Your task to perform on an android device: move an email to a new category in the gmail app Image 0: 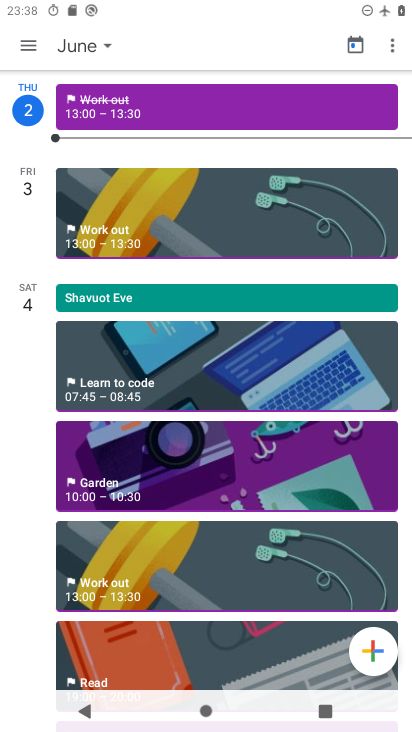
Step 0: press back button
Your task to perform on an android device: move an email to a new category in the gmail app Image 1: 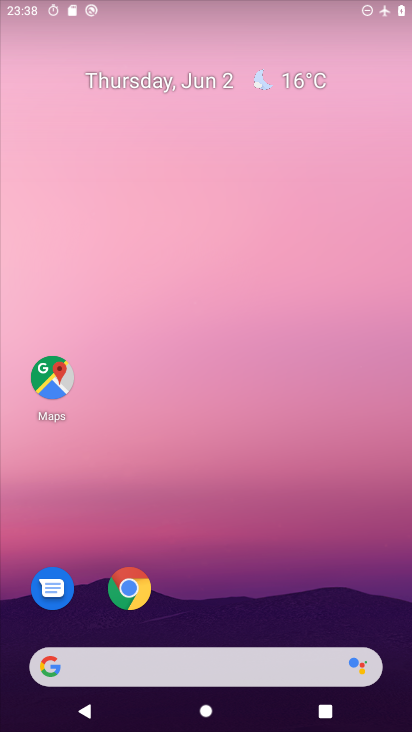
Step 1: drag from (267, 568) to (301, 57)
Your task to perform on an android device: move an email to a new category in the gmail app Image 2: 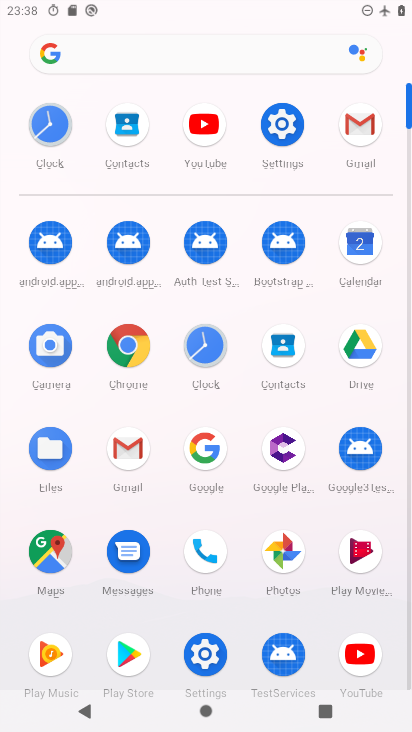
Step 2: click (364, 131)
Your task to perform on an android device: move an email to a new category in the gmail app Image 3: 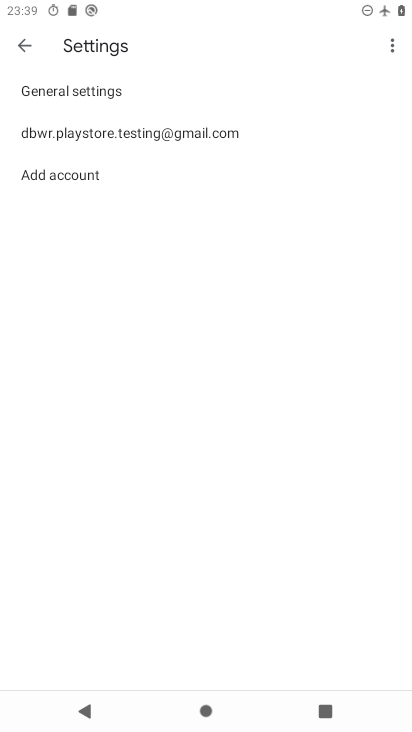
Step 3: click (14, 40)
Your task to perform on an android device: move an email to a new category in the gmail app Image 4: 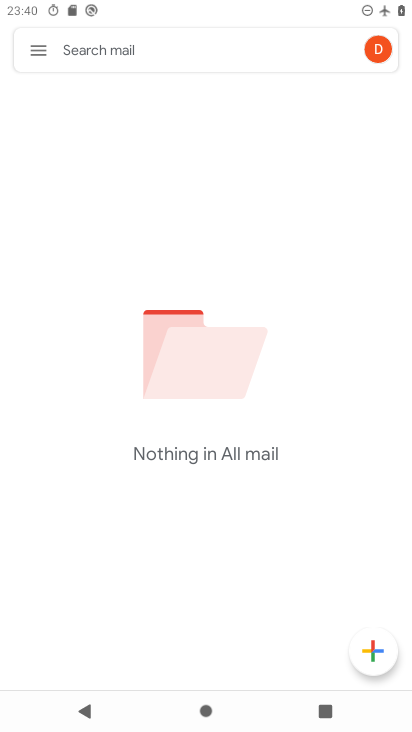
Step 4: task complete